Your task to perform on an android device: Go to Google Image 0: 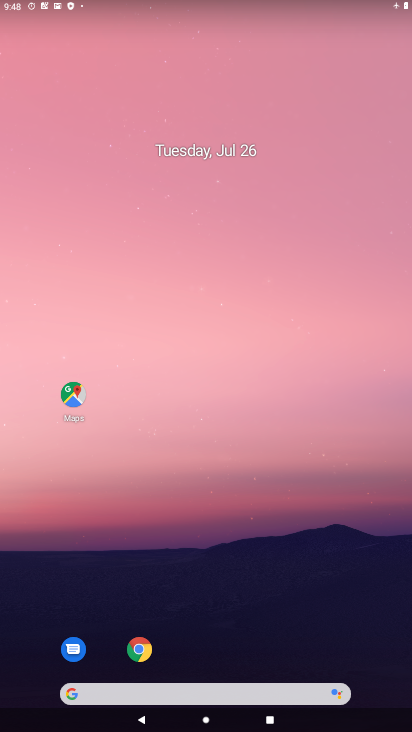
Step 0: drag from (187, 568) to (226, 17)
Your task to perform on an android device: Go to Google Image 1: 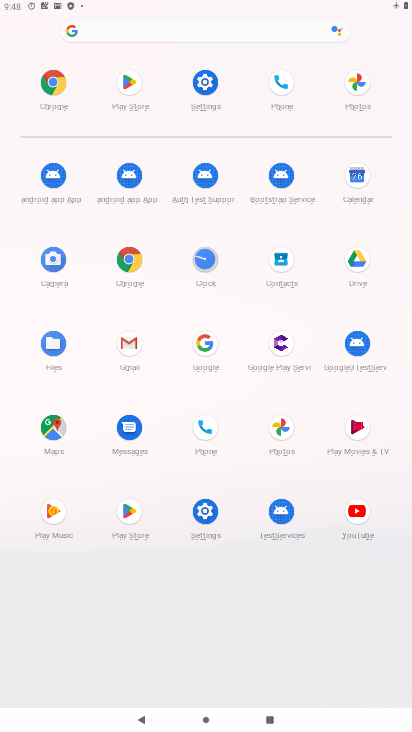
Step 1: click (198, 343)
Your task to perform on an android device: Go to Google Image 2: 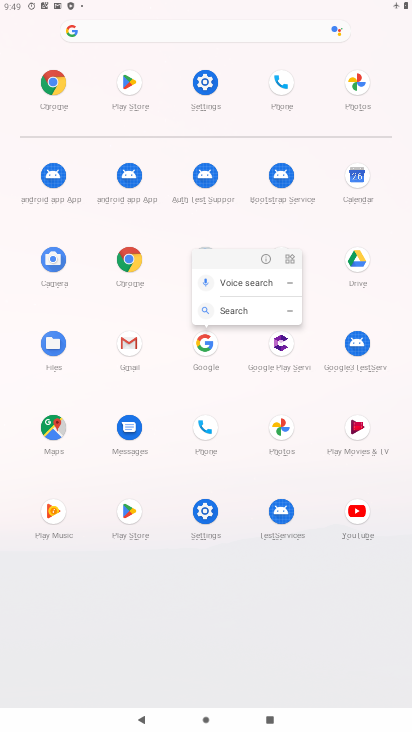
Step 2: click (264, 253)
Your task to perform on an android device: Go to Google Image 3: 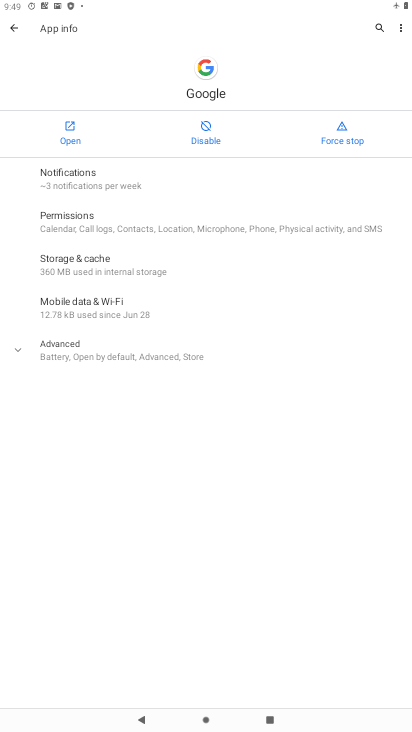
Step 3: click (61, 130)
Your task to perform on an android device: Go to Google Image 4: 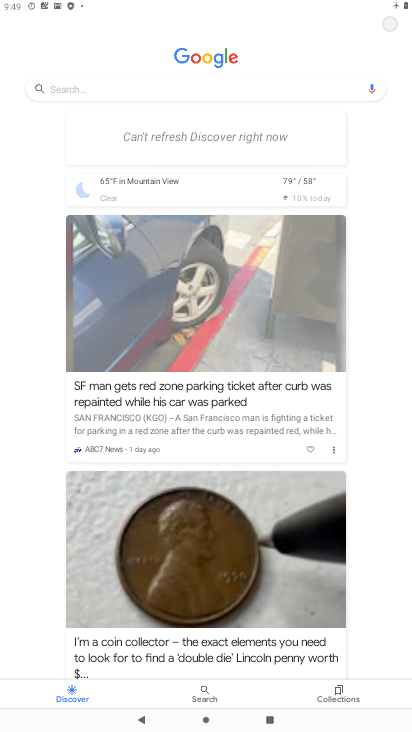
Step 4: task complete